Your task to perform on an android device: turn off notifications settings in the gmail app Image 0: 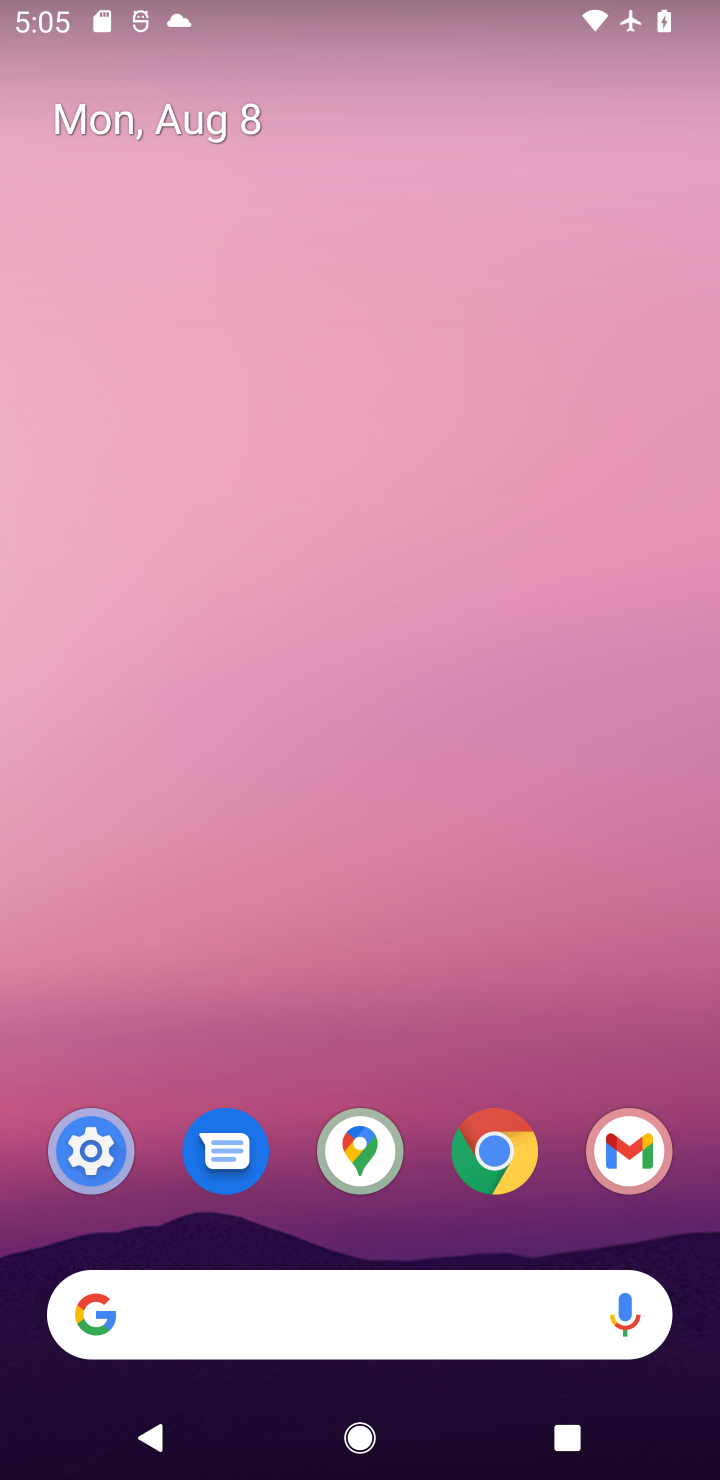
Step 0: click (613, 1172)
Your task to perform on an android device: turn off notifications settings in the gmail app Image 1: 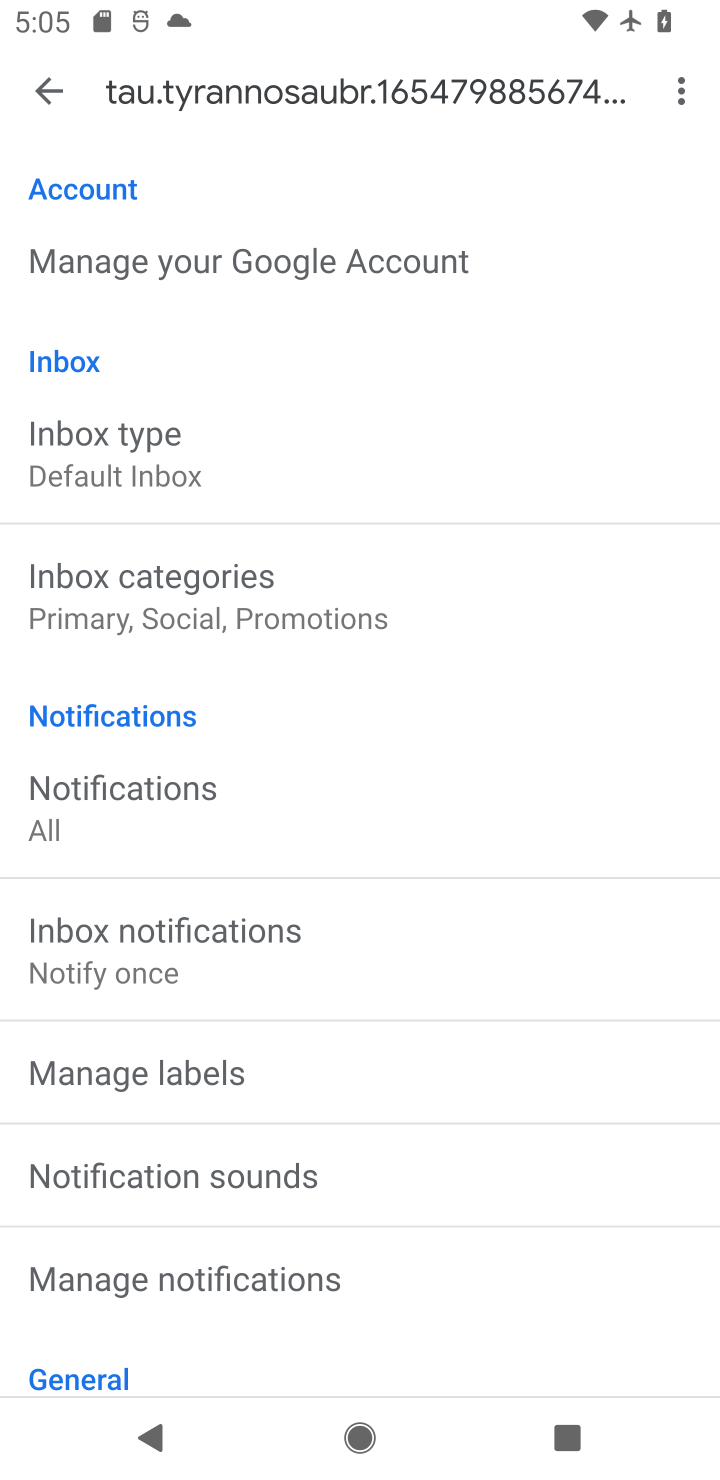
Step 1: click (352, 1291)
Your task to perform on an android device: turn off notifications settings in the gmail app Image 2: 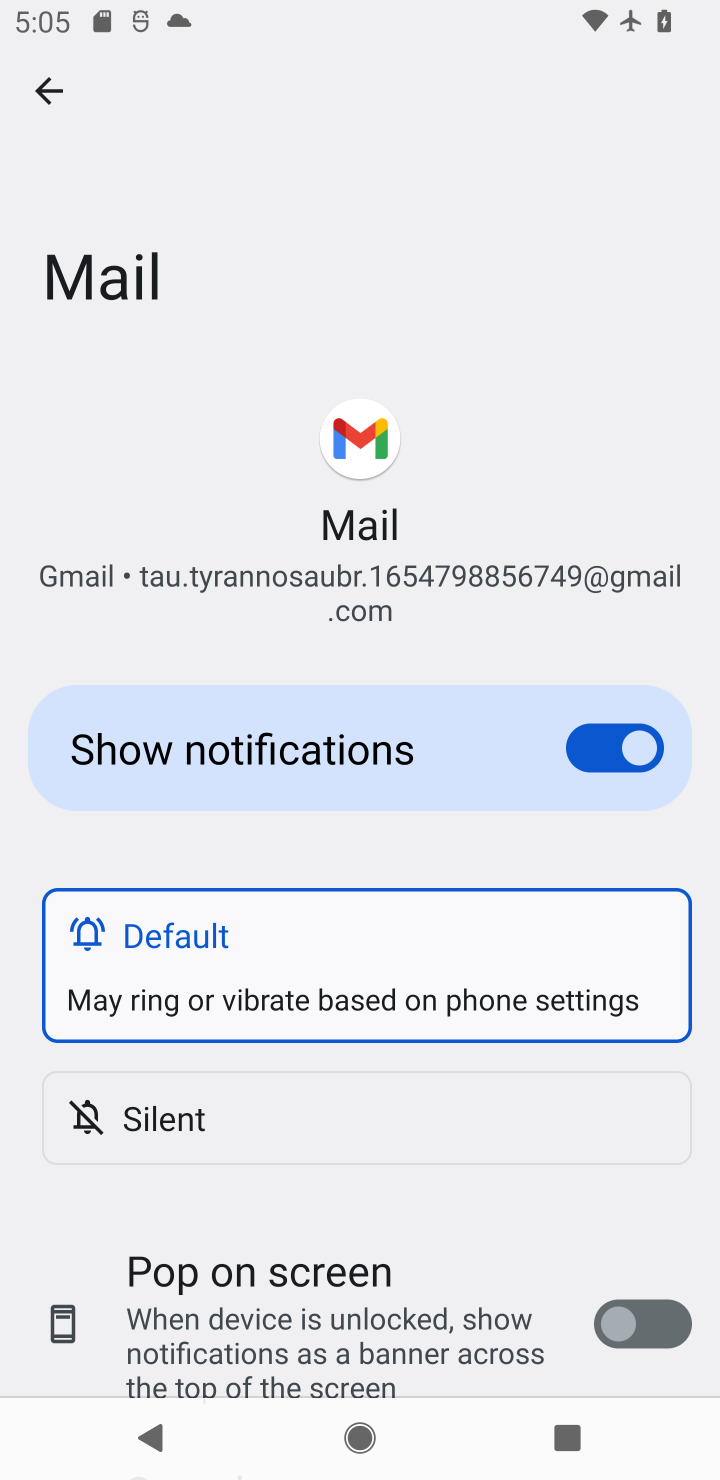
Step 2: click (595, 748)
Your task to perform on an android device: turn off notifications settings in the gmail app Image 3: 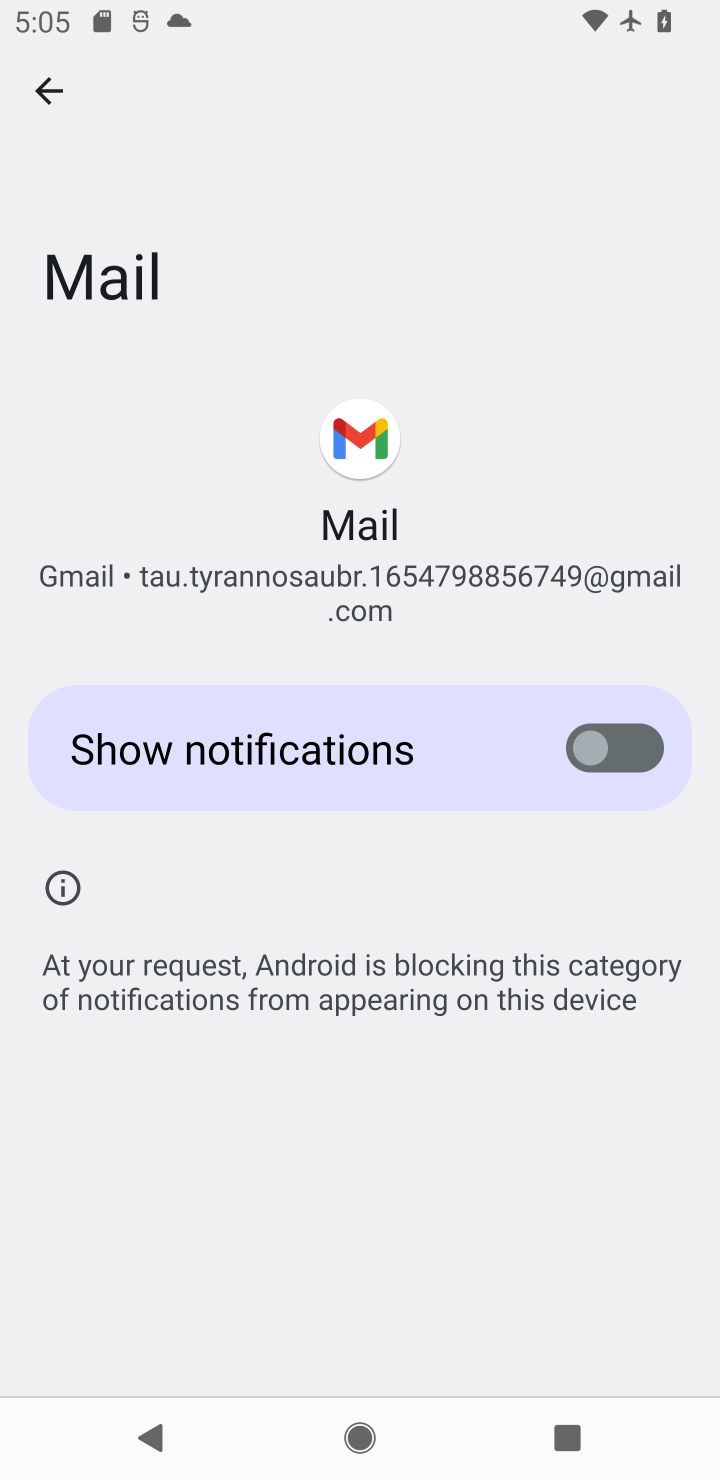
Step 3: task complete